Your task to perform on an android device: clear all cookies in the chrome app Image 0: 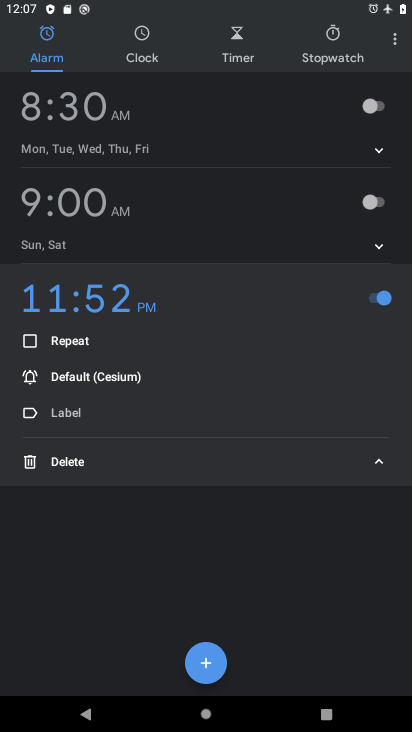
Step 0: press back button
Your task to perform on an android device: clear all cookies in the chrome app Image 1: 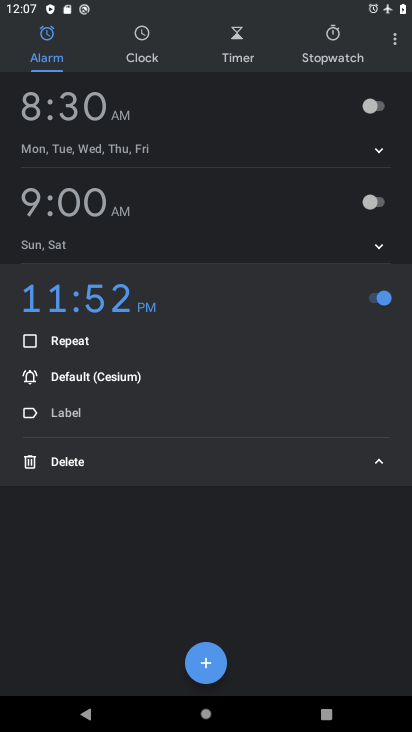
Step 1: press home button
Your task to perform on an android device: clear all cookies in the chrome app Image 2: 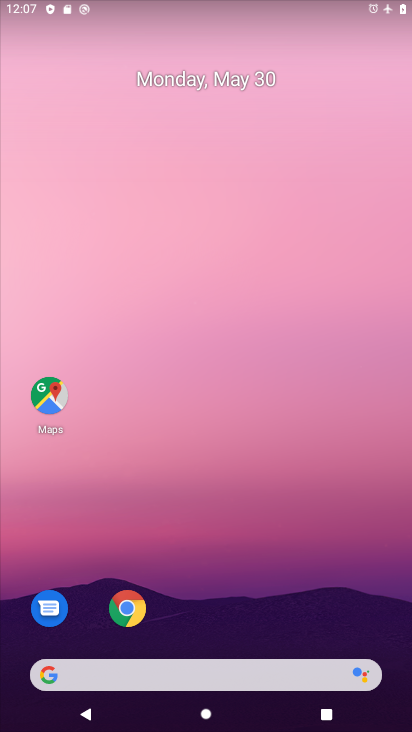
Step 2: drag from (168, 659) to (291, 6)
Your task to perform on an android device: clear all cookies in the chrome app Image 3: 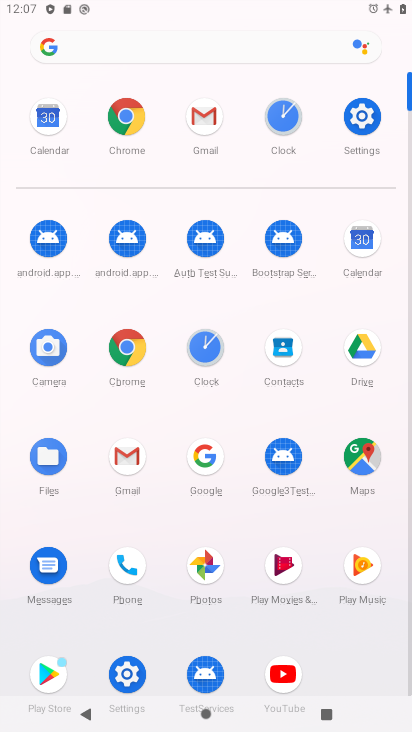
Step 3: click (124, 346)
Your task to perform on an android device: clear all cookies in the chrome app Image 4: 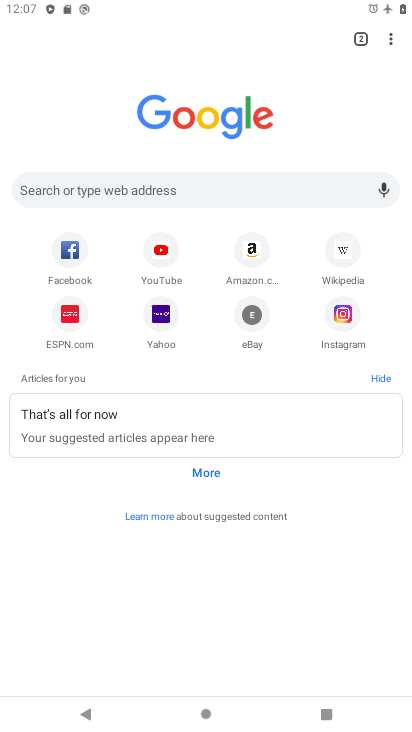
Step 4: drag from (388, 40) to (263, 323)
Your task to perform on an android device: clear all cookies in the chrome app Image 5: 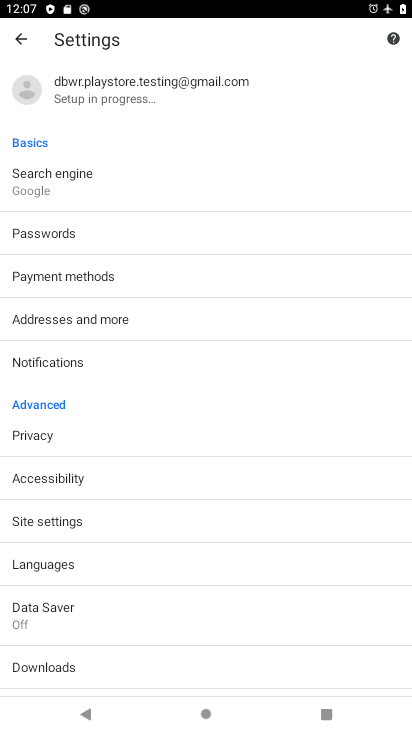
Step 5: click (28, 432)
Your task to perform on an android device: clear all cookies in the chrome app Image 6: 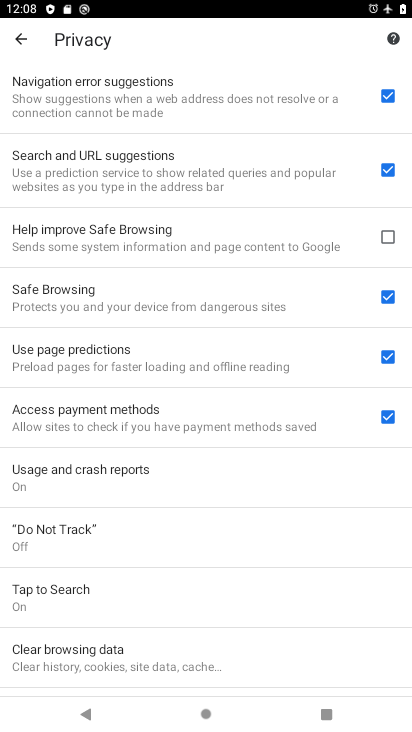
Step 6: click (24, 669)
Your task to perform on an android device: clear all cookies in the chrome app Image 7: 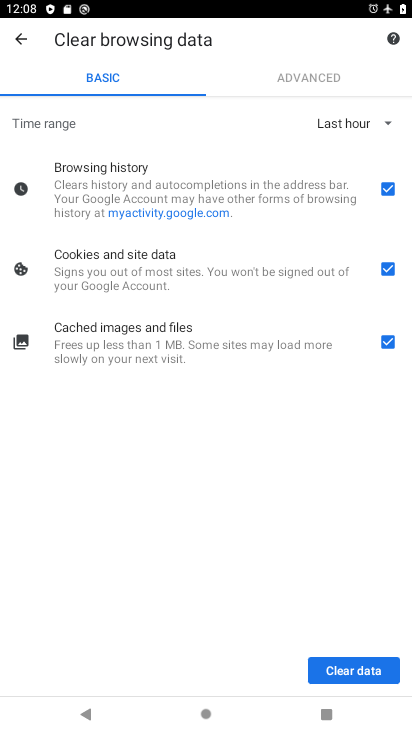
Step 7: click (335, 666)
Your task to perform on an android device: clear all cookies in the chrome app Image 8: 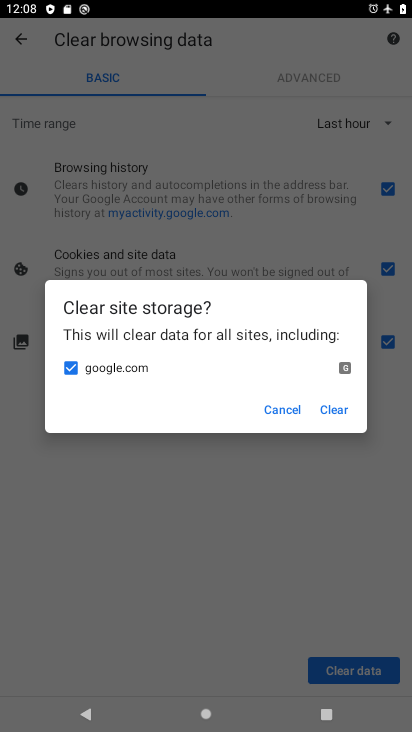
Step 8: click (333, 400)
Your task to perform on an android device: clear all cookies in the chrome app Image 9: 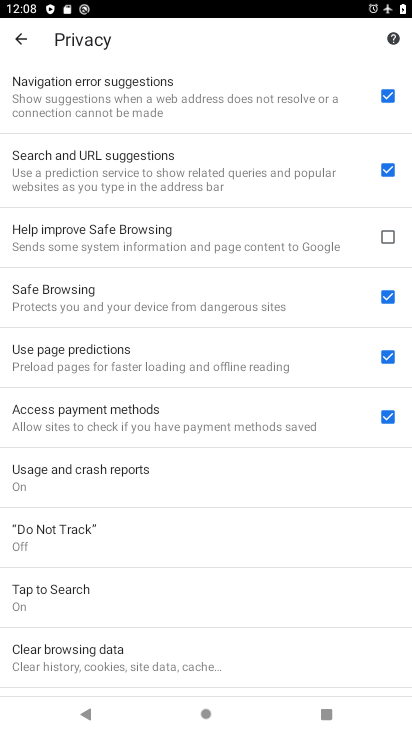
Step 9: task complete